Your task to perform on an android device: delete location history Image 0: 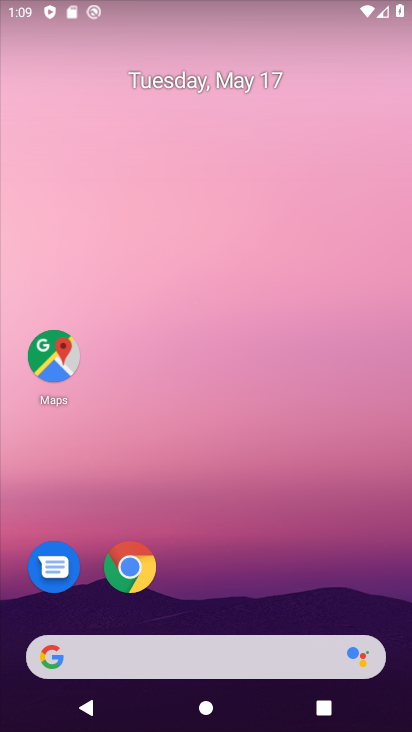
Step 0: click (55, 359)
Your task to perform on an android device: delete location history Image 1: 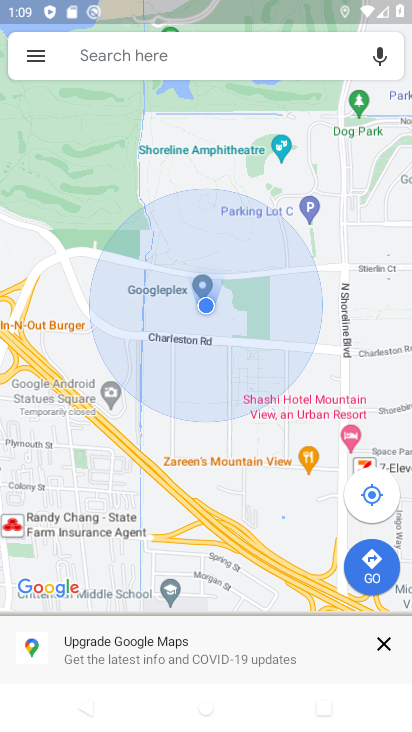
Step 1: click (38, 55)
Your task to perform on an android device: delete location history Image 2: 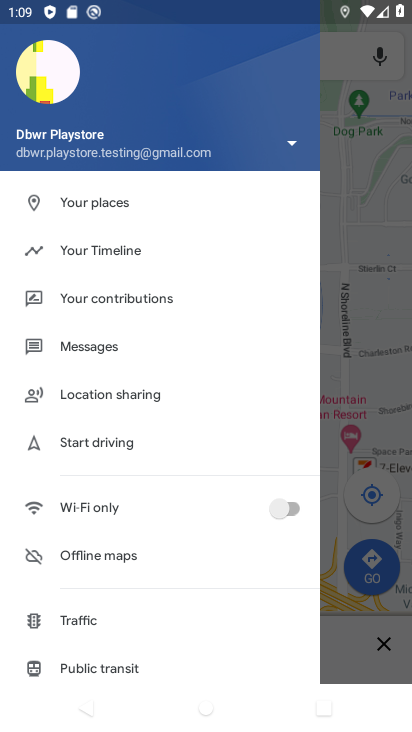
Step 2: drag from (181, 590) to (188, 282)
Your task to perform on an android device: delete location history Image 3: 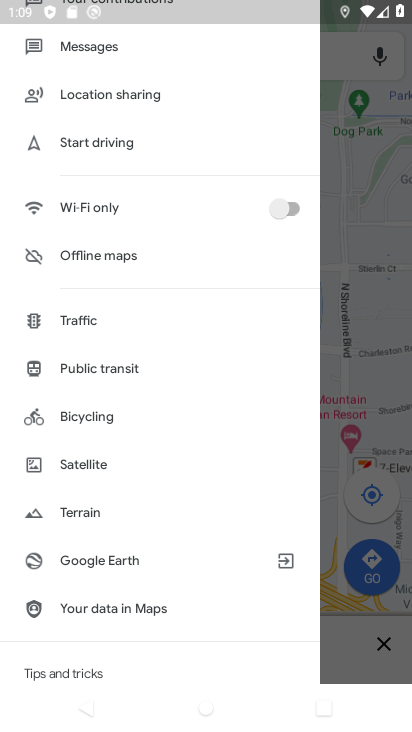
Step 3: drag from (194, 627) to (174, 382)
Your task to perform on an android device: delete location history Image 4: 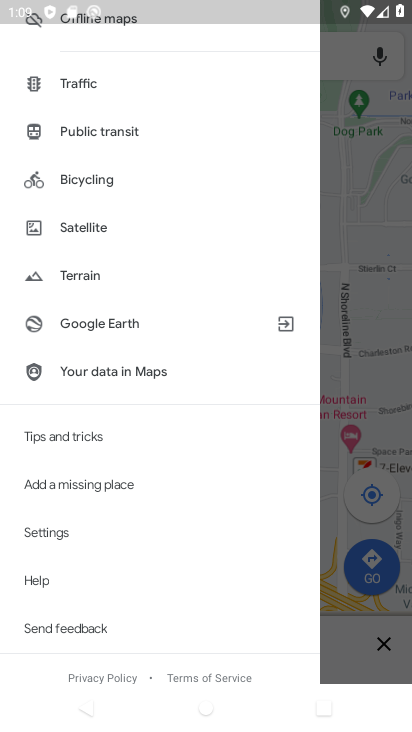
Step 4: click (38, 530)
Your task to perform on an android device: delete location history Image 5: 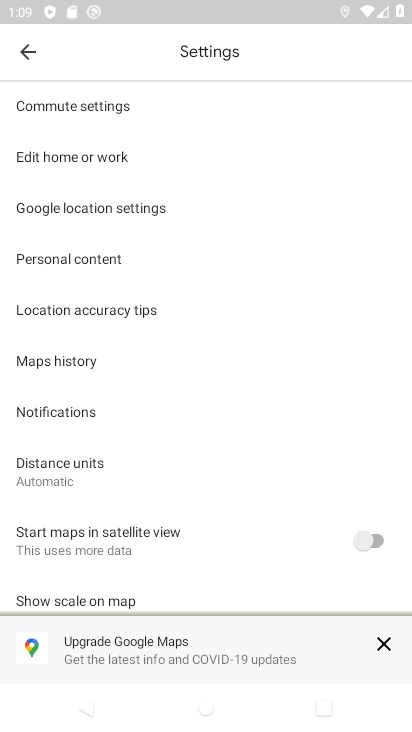
Step 5: click (73, 254)
Your task to perform on an android device: delete location history Image 6: 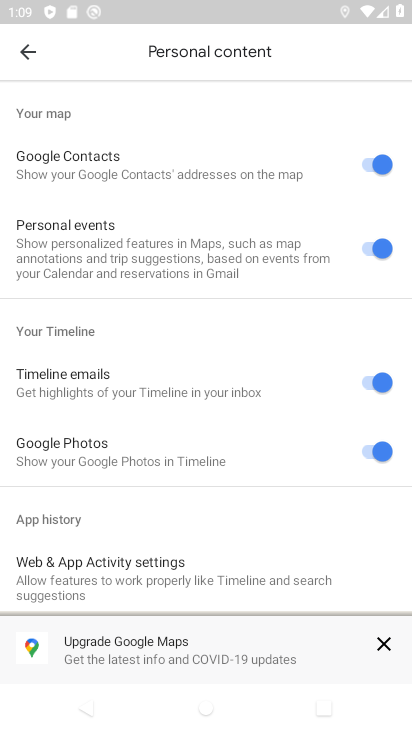
Step 6: drag from (251, 576) to (262, 141)
Your task to perform on an android device: delete location history Image 7: 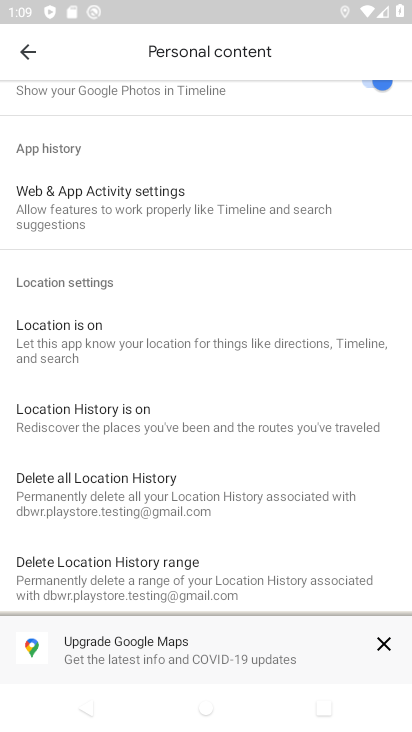
Step 7: click (63, 479)
Your task to perform on an android device: delete location history Image 8: 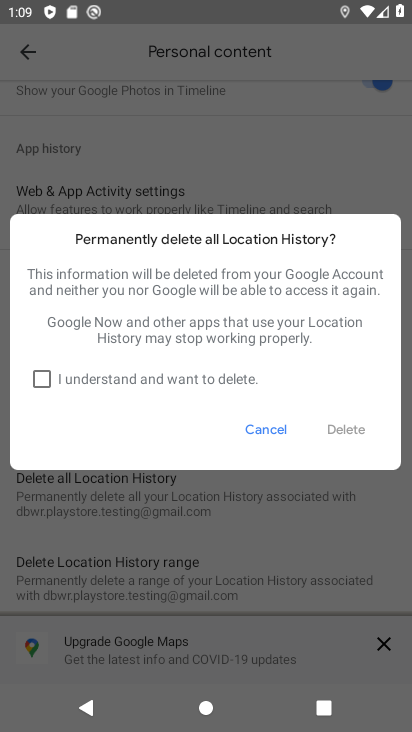
Step 8: click (45, 373)
Your task to perform on an android device: delete location history Image 9: 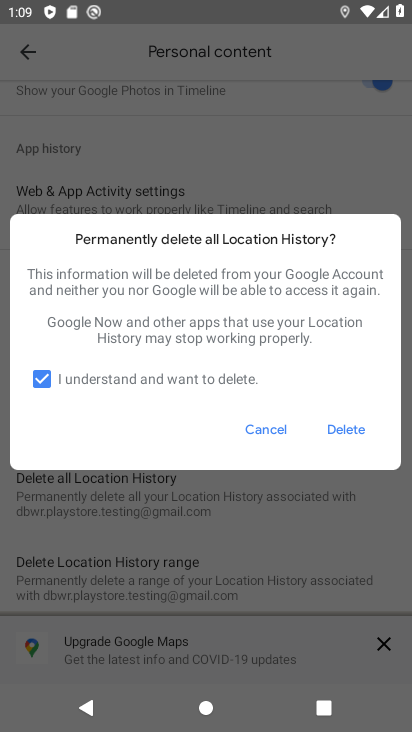
Step 9: click (354, 428)
Your task to perform on an android device: delete location history Image 10: 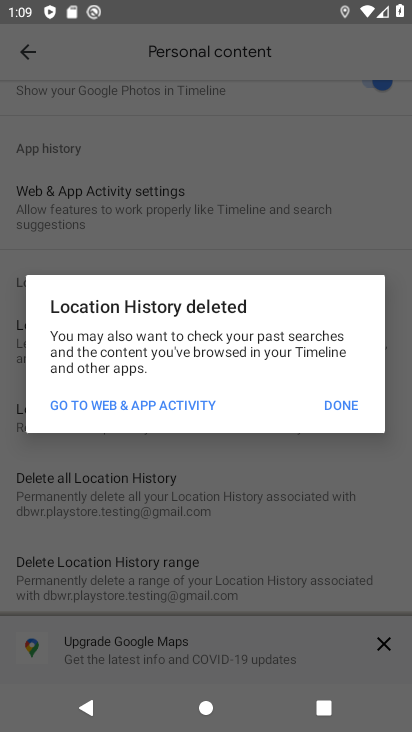
Step 10: click (340, 407)
Your task to perform on an android device: delete location history Image 11: 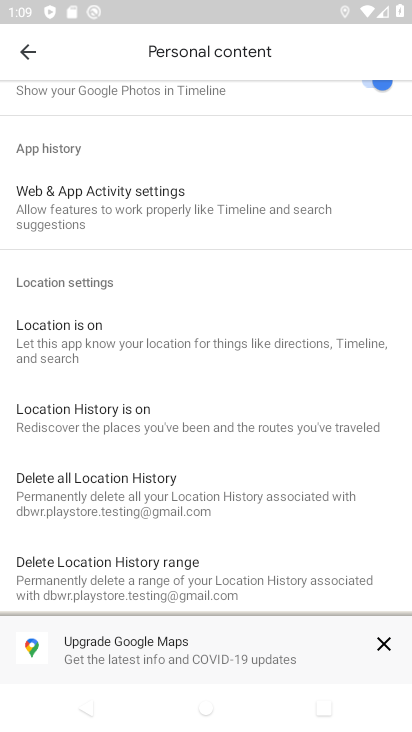
Step 11: task complete